Your task to perform on an android device: What's the weather going to be tomorrow? Image 0: 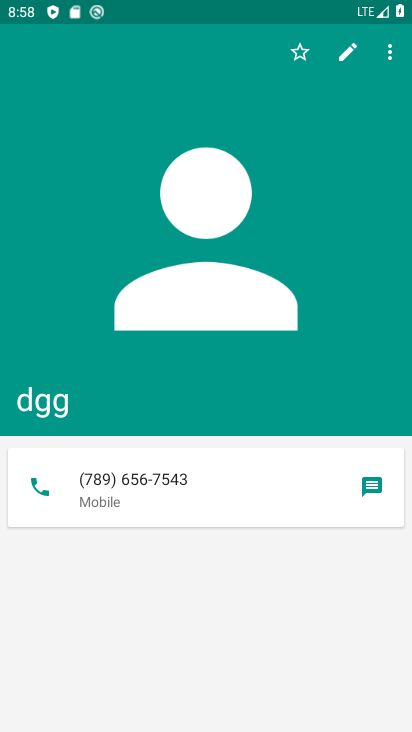
Step 0: press home button
Your task to perform on an android device: What's the weather going to be tomorrow? Image 1: 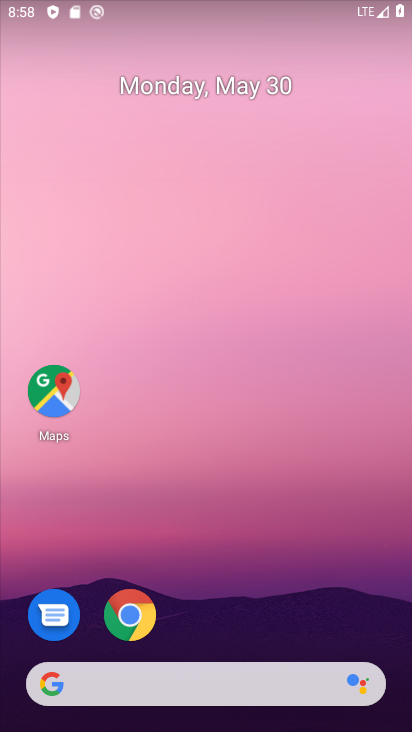
Step 1: click (172, 681)
Your task to perform on an android device: What's the weather going to be tomorrow? Image 2: 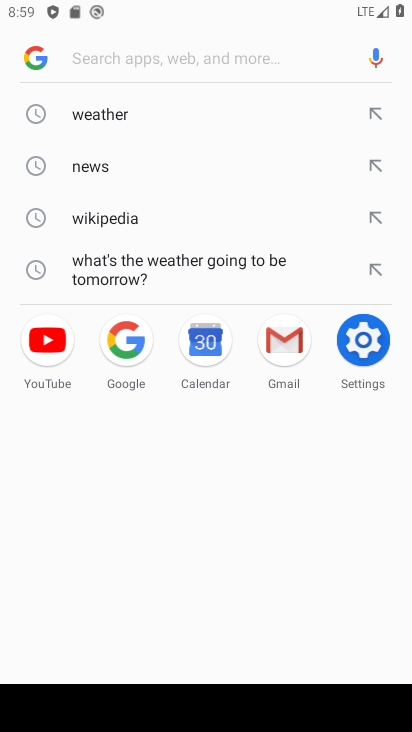
Step 2: click (191, 128)
Your task to perform on an android device: What's the weather going to be tomorrow? Image 3: 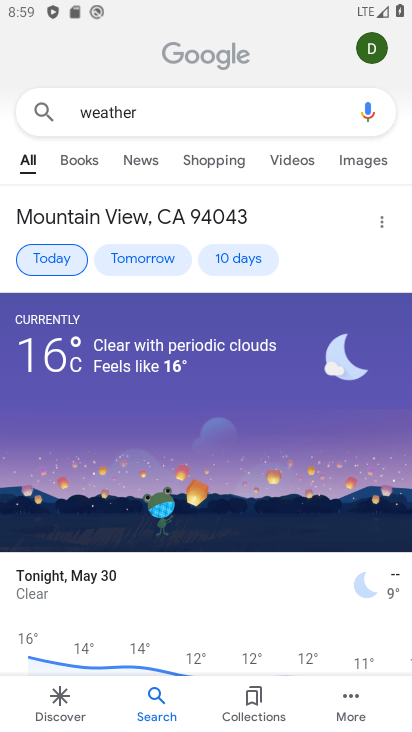
Step 3: click (176, 255)
Your task to perform on an android device: What's the weather going to be tomorrow? Image 4: 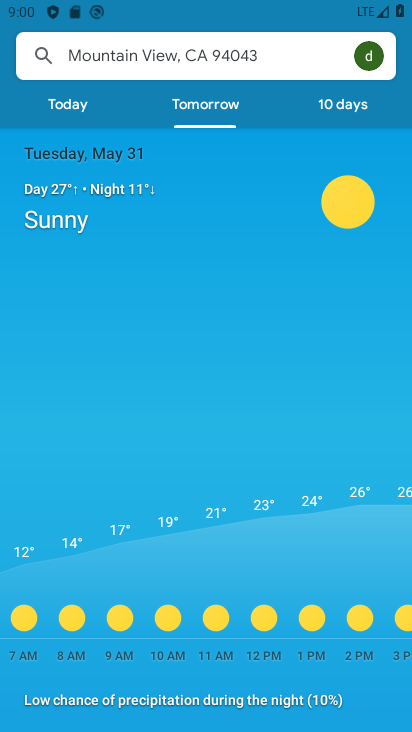
Step 4: task complete